Your task to perform on an android device: open chrome privacy settings Image 0: 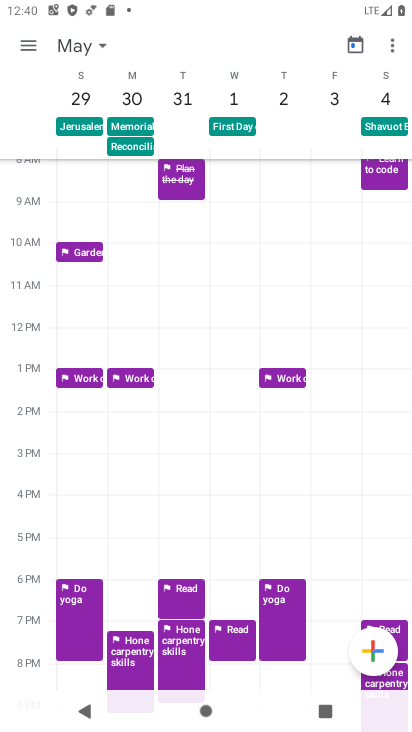
Step 0: press home button
Your task to perform on an android device: open chrome privacy settings Image 1: 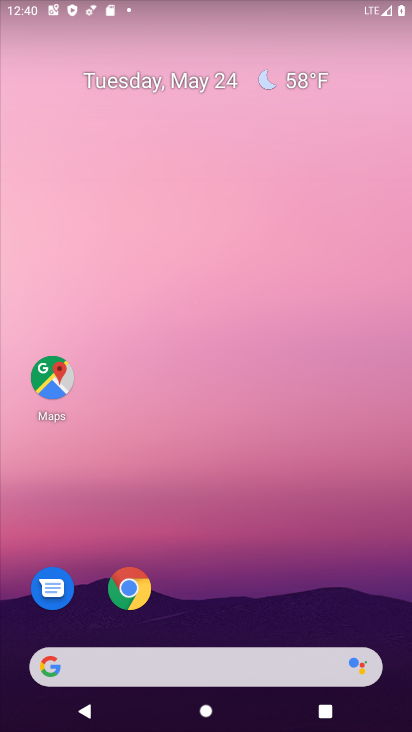
Step 1: drag from (212, 631) to (212, 207)
Your task to perform on an android device: open chrome privacy settings Image 2: 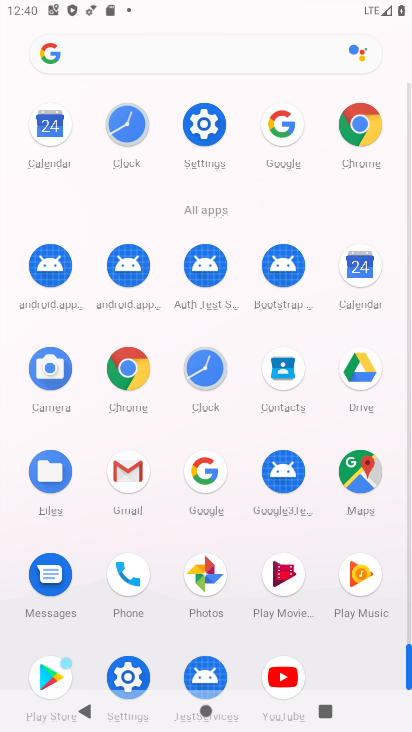
Step 2: click (352, 160)
Your task to perform on an android device: open chrome privacy settings Image 3: 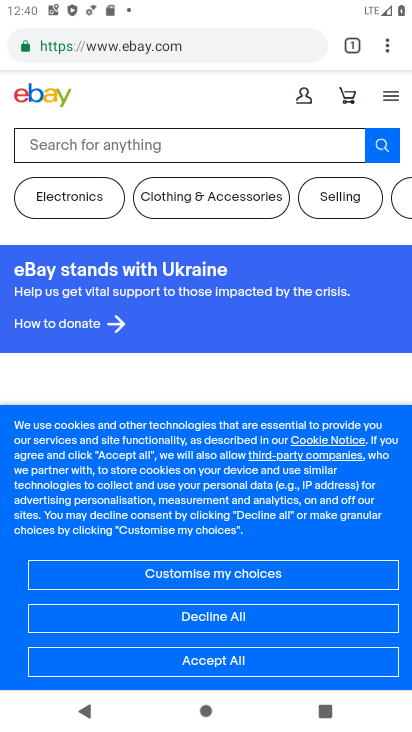
Step 3: click (386, 48)
Your task to perform on an android device: open chrome privacy settings Image 4: 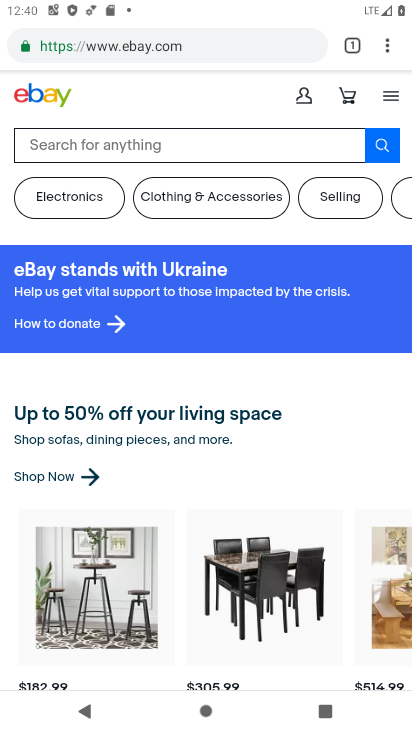
Step 4: click (386, 49)
Your task to perform on an android device: open chrome privacy settings Image 5: 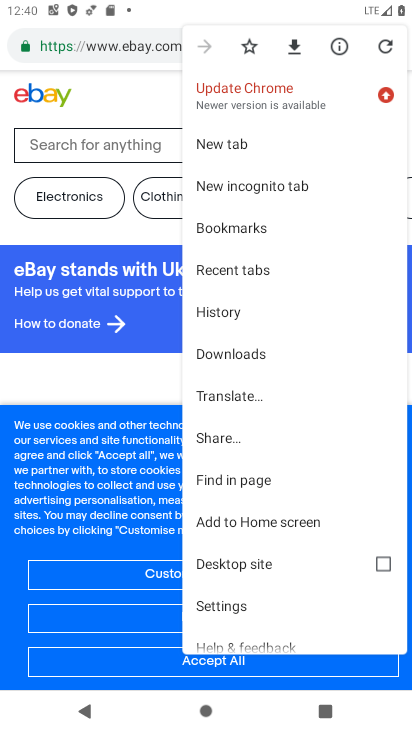
Step 5: click (233, 612)
Your task to perform on an android device: open chrome privacy settings Image 6: 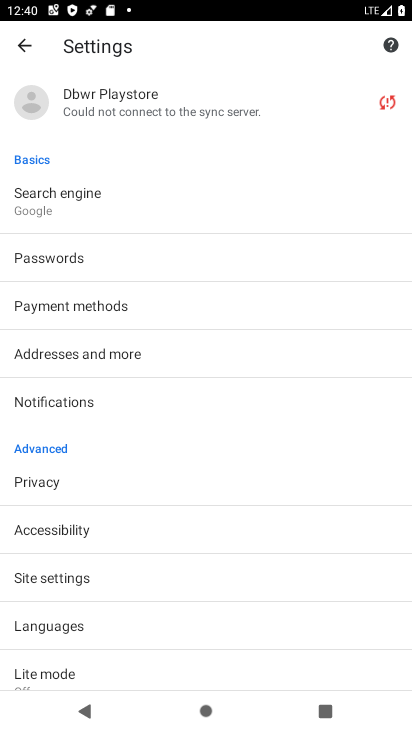
Step 6: drag from (136, 594) to (154, 304)
Your task to perform on an android device: open chrome privacy settings Image 7: 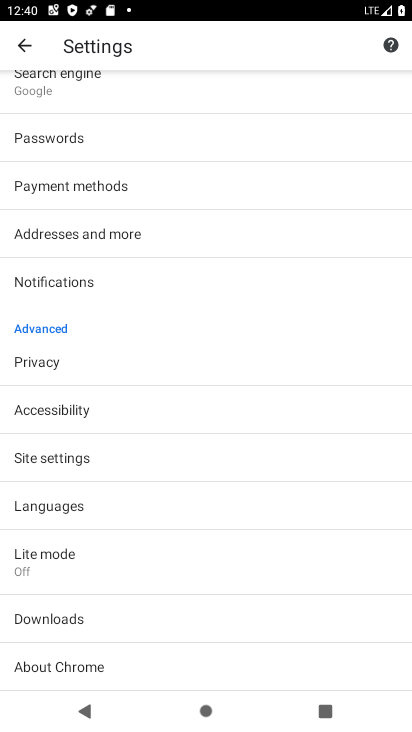
Step 7: click (62, 370)
Your task to perform on an android device: open chrome privacy settings Image 8: 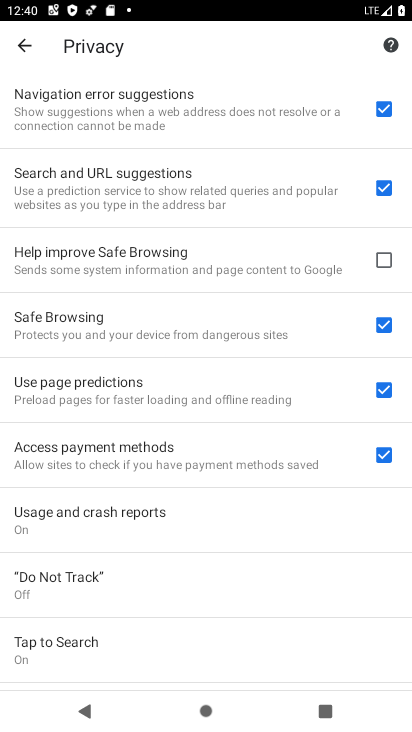
Step 8: task complete